Your task to perform on an android device: Open Yahoo.com Image 0: 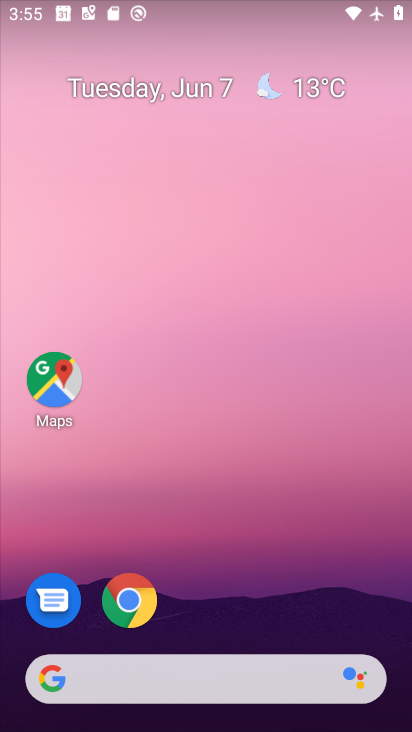
Step 0: drag from (287, 564) to (266, 147)
Your task to perform on an android device: Open Yahoo.com Image 1: 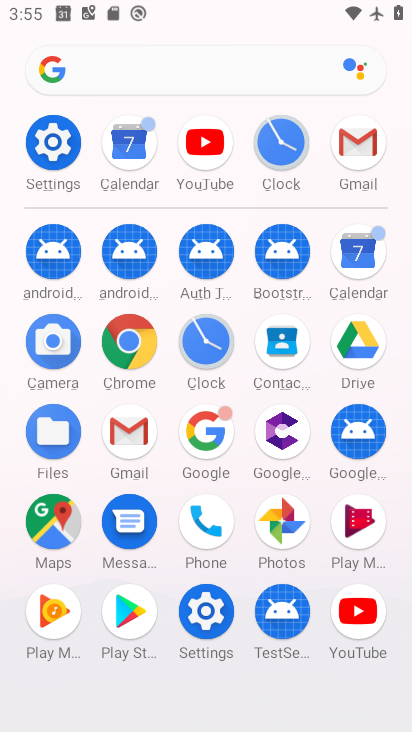
Step 1: click (133, 340)
Your task to perform on an android device: Open Yahoo.com Image 2: 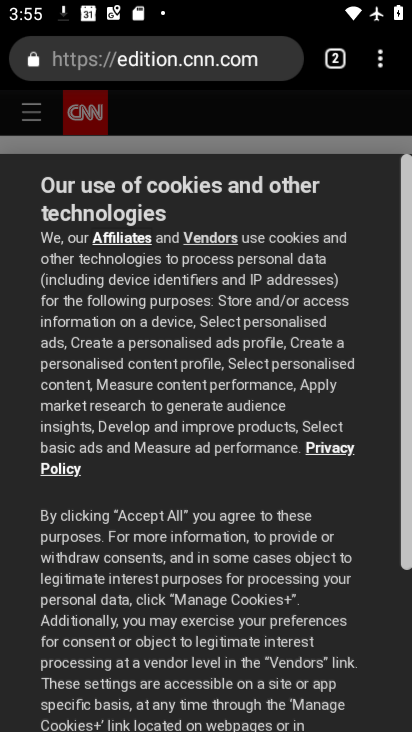
Step 2: click (194, 74)
Your task to perform on an android device: Open Yahoo.com Image 3: 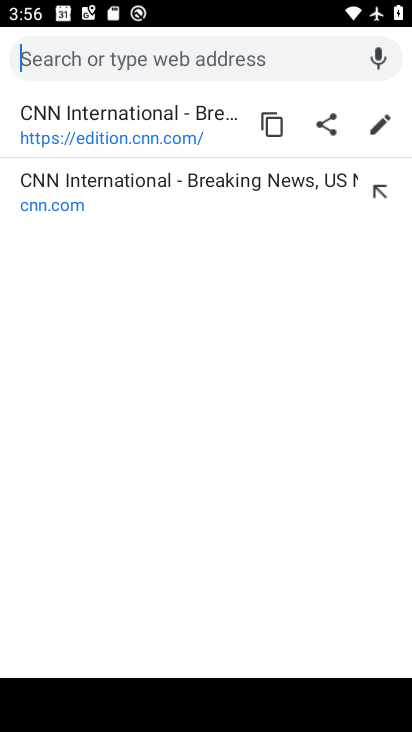
Step 3: type "yahoo.com"
Your task to perform on an android device: Open Yahoo.com Image 4: 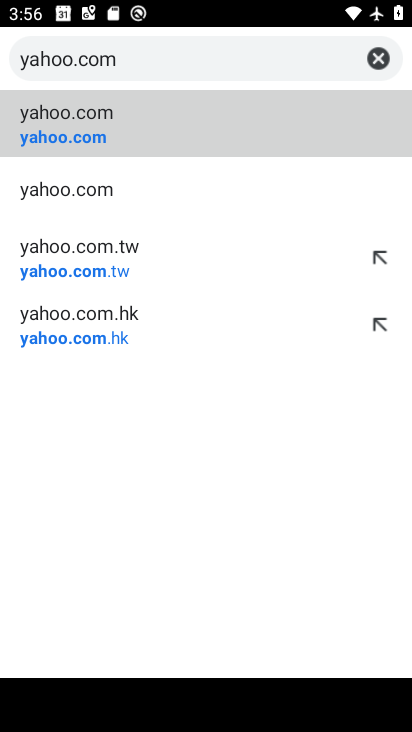
Step 4: click (94, 142)
Your task to perform on an android device: Open Yahoo.com Image 5: 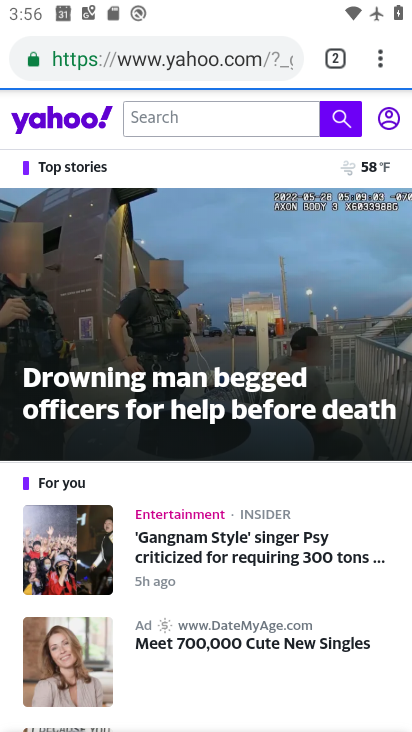
Step 5: task complete